Your task to perform on an android device: Search for pizza restaurants on Maps Image 0: 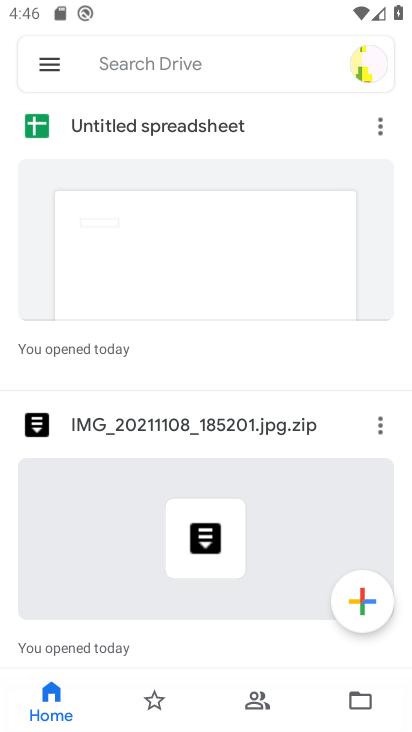
Step 0: press home button
Your task to perform on an android device: Search for pizza restaurants on Maps Image 1: 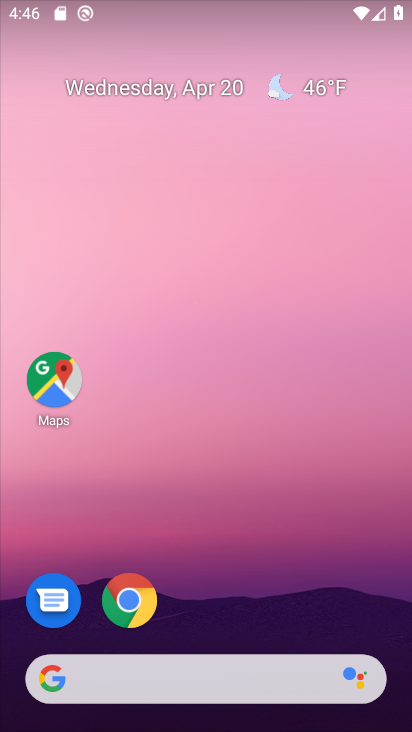
Step 1: click (45, 373)
Your task to perform on an android device: Search for pizza restaurants on Maps Image 2: 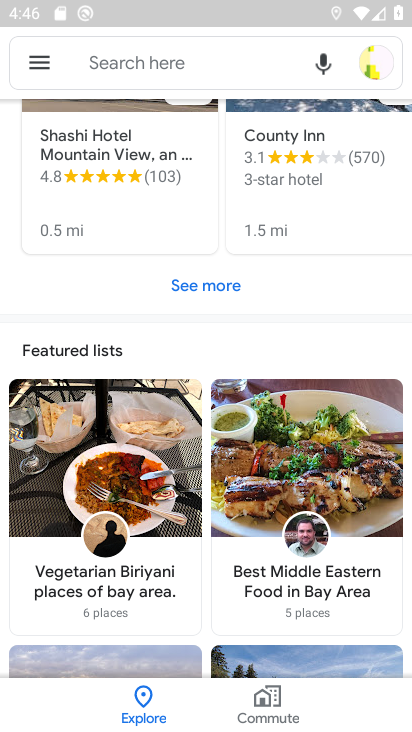
Step 2: click (135, 49)
Your task to perform on an android device: Search for pizza restaurants on Maps Image 3: 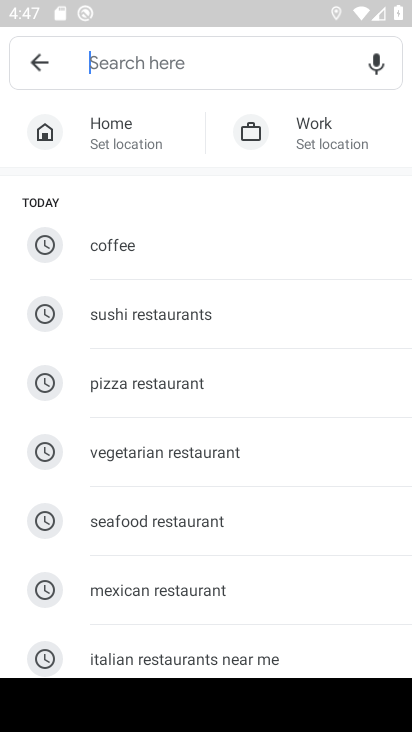
Step 3: click (130, 381)
Your task to perform on an android device: Search for pizza restaurants on Maps Image 4: 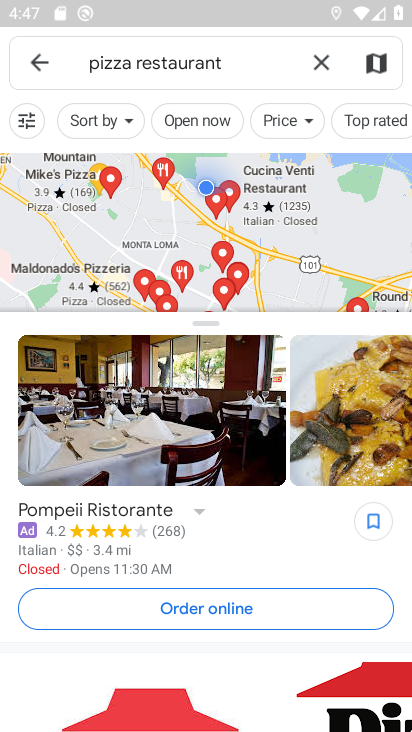
Step 4: task complete